Your task to perform on an android device: Open Reddit.com Image 0: 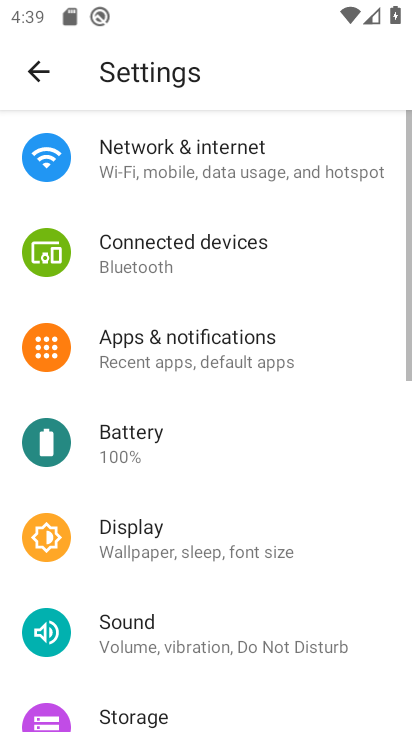
Step 0: press home button
Your task to perform on an android device: Open Reddit.com Image 1: 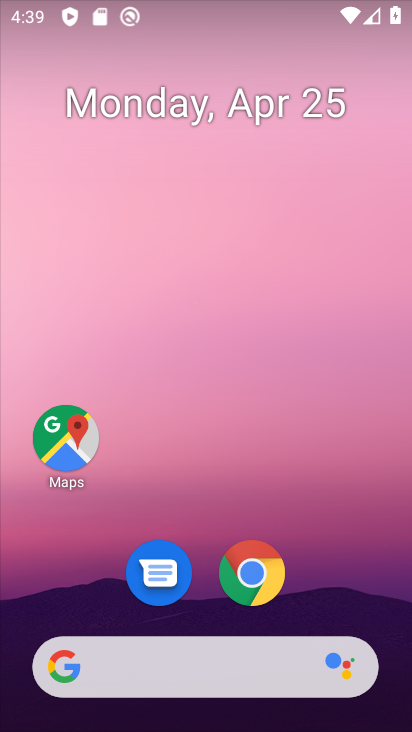
Step 1: click (257, 567)
Your task to perform on an android device: Open Reddit.com Image 2: 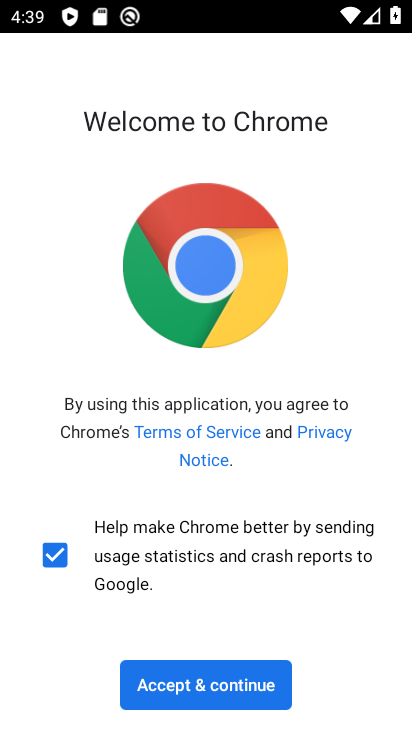
Step 2: click (167, 677)
Your task to perform on an android device: Open Reddit.com Image 3: 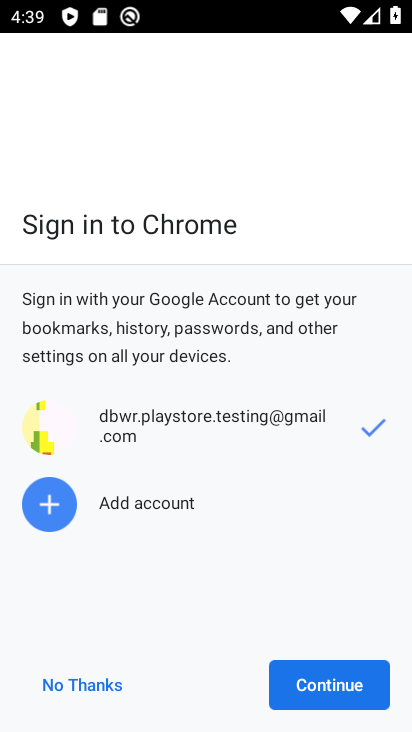
Step 3: click (119, 680)
Your task to perform on an android device: Open Reddit.com Image 4: 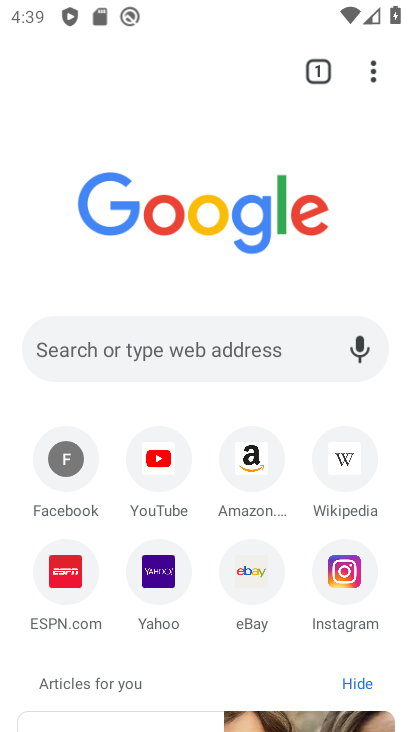
Step 4: click (178, 349)
Your task to perform on an android device: Open Reddit.com Image 5: 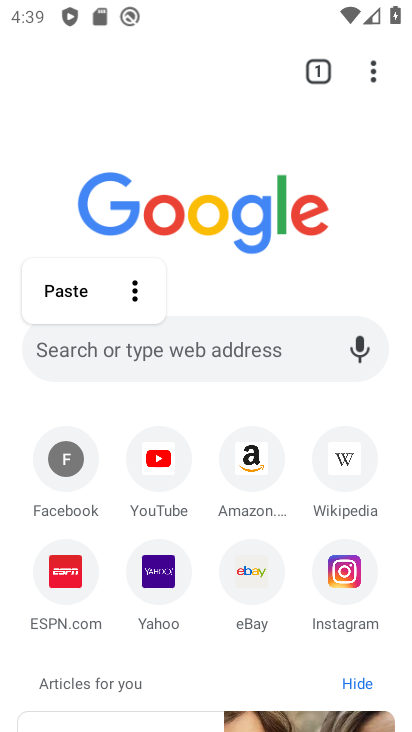
Step 5: click (165, 345)
Your task to perform on an android device: Open Reddit.com Image 6: 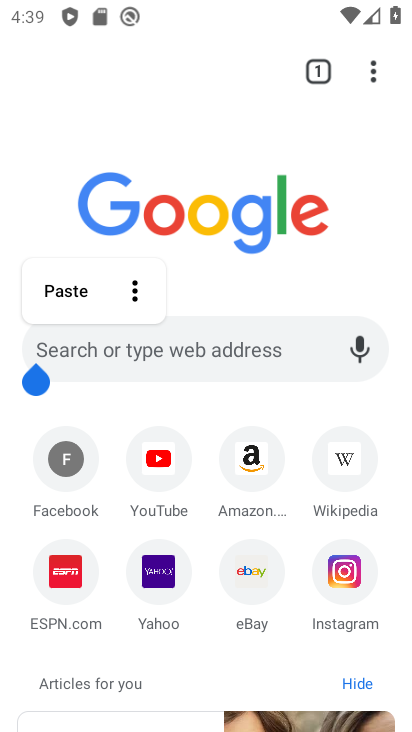
Step 6: click (192, 363)
Your task to perform on an android device: Open Reddit.com Image 7: 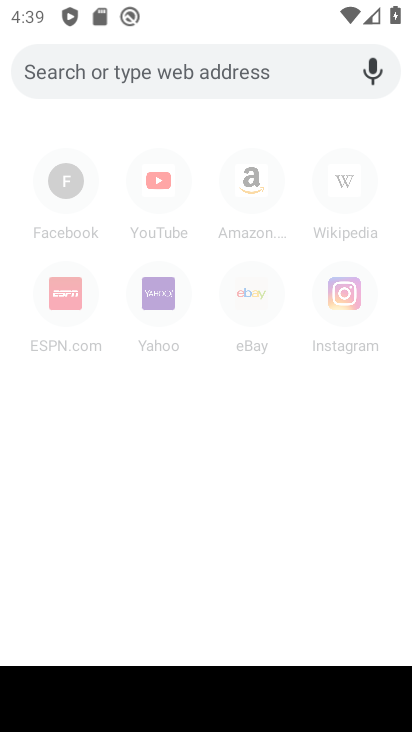
Step 7: type "reddit.com"
Your task to perform on an android device: Open Reddit.com Image 8: 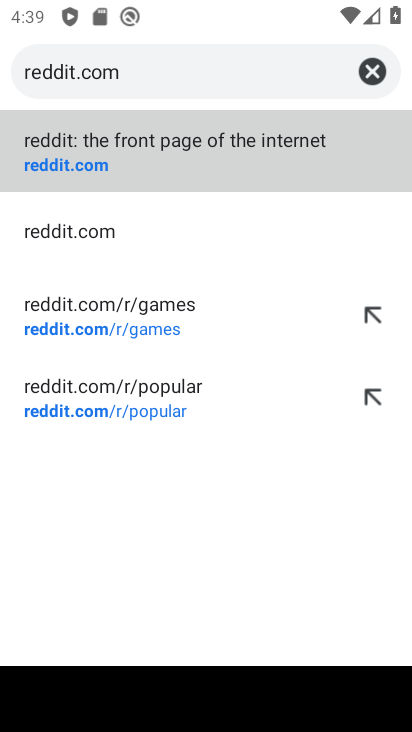
Step 8: click (93, 234)
Your task to perform on an android device: Open Reddit.com Image 9: 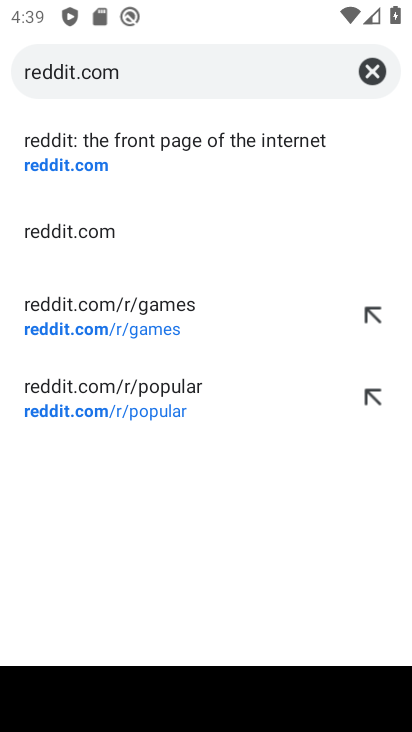
Step 9: click (83, 252)
Your task to perform on an android device: Open Reddit.com Image 10: 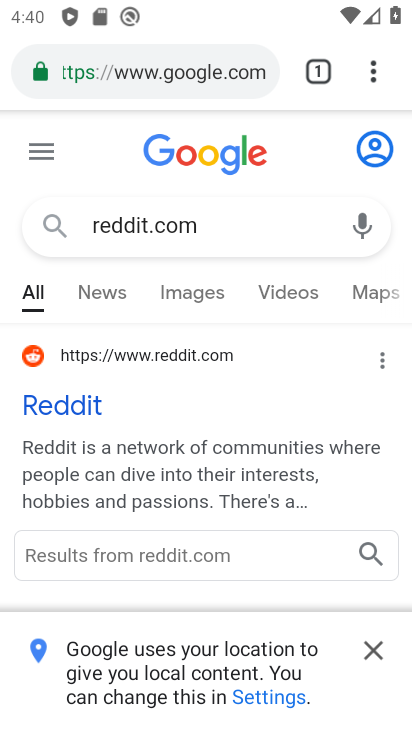
Step 10: click (63, 413)
Your task to perform on an android device: Open Reddit.com Image 11: 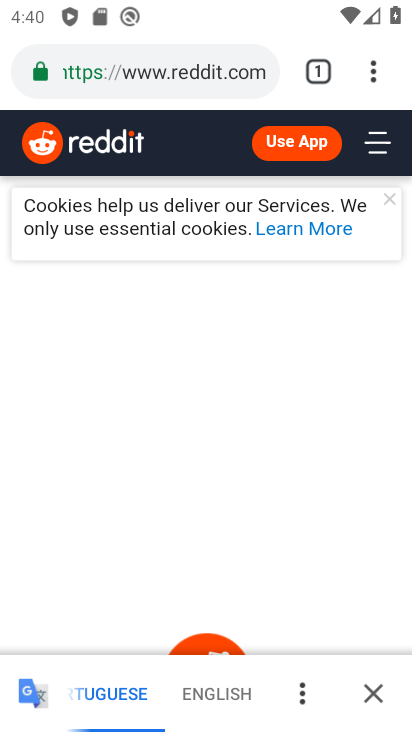
Step 11: task complete